Your task to perform on an android device: Open the calendar app, open the side menu, and click the "Day" option Image 0: 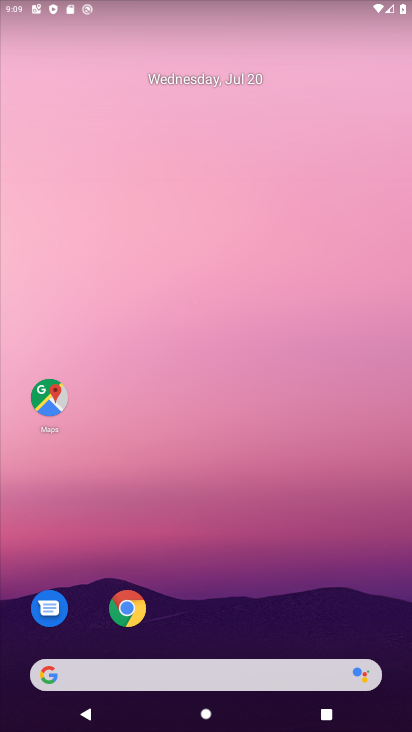
Step 0: drag from (149, 711) to (163, 6)
Your task to perform on an android device: Open the calendar app, open the side menu, and click the "Day" option Image 1: 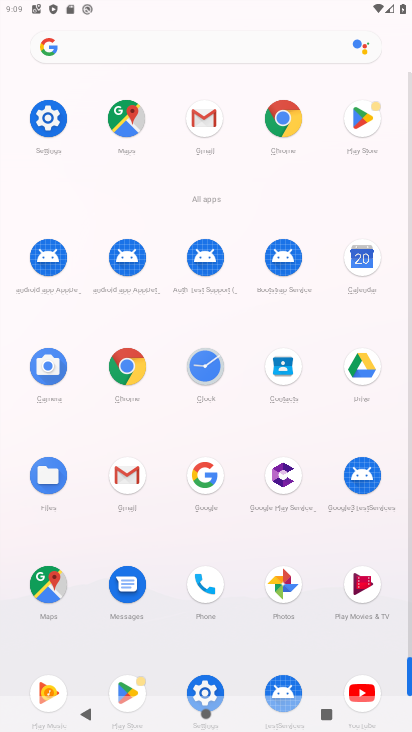
Step 1: click (367, 258)
Your task to perform on an android device: Open the calendar app, open the side menu, and click the "Day" option Image 2: 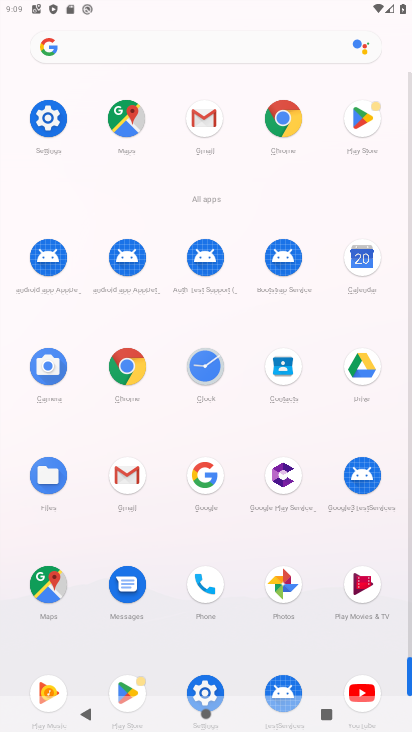
Step 2: click (367, 258)
Your task to perform on an android device: Open the calendar app, open the side menu, and click the "Day" option Image 3: 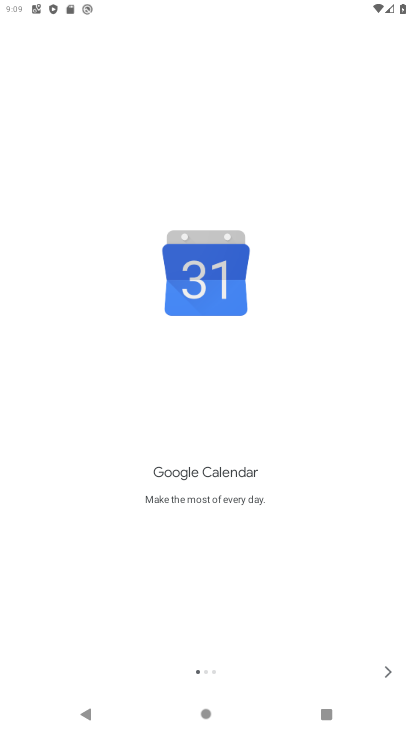
Step 3: click (391, 667)
Your task to perform on an android device: Open the calendar app, open the side menu, and click the "Day" option Image 4: 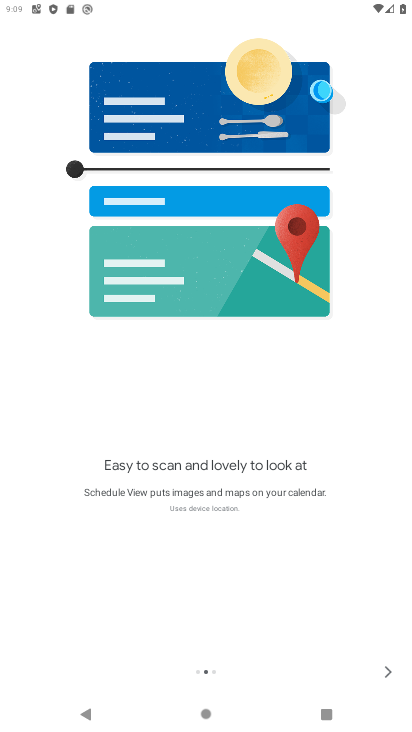
Step 4: click (390, 667)
Your task to perform on an android device: Open the calendar app, open the side menu, and click the "Day" option Image 5: 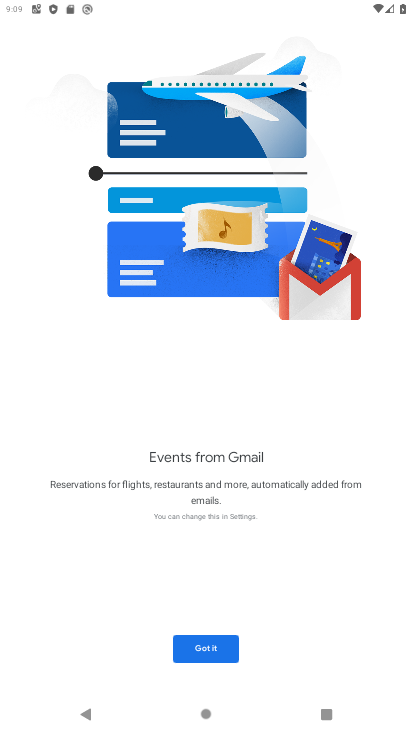
Step 5: click (203, 649)
Your task to perform on an android device: Open the calendar app, open the side menu, and click the "Day" option Image 6: 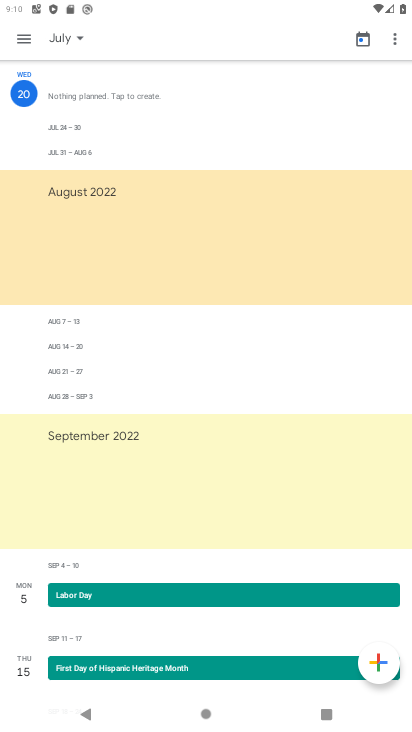
Step 6: click (25, 43)
Your task to perform on an android device: Open the calendar app, open the side menu, and click the "Day" option Image 7: 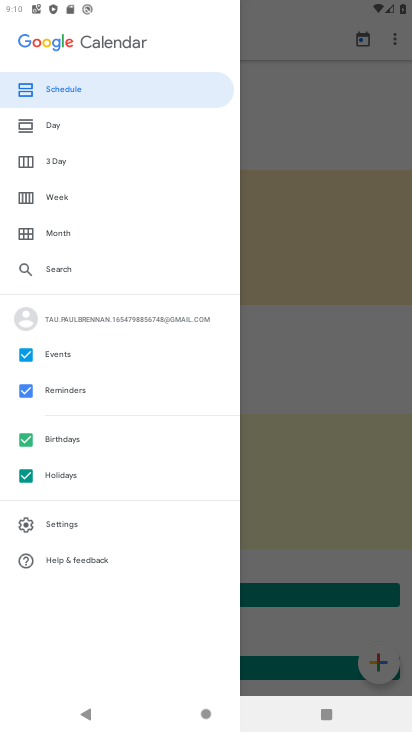
Step 7: click (69, 126)
Your task to perform on an android device: Open the calendar app, open the side menu, and click the "Day" option Image 8: 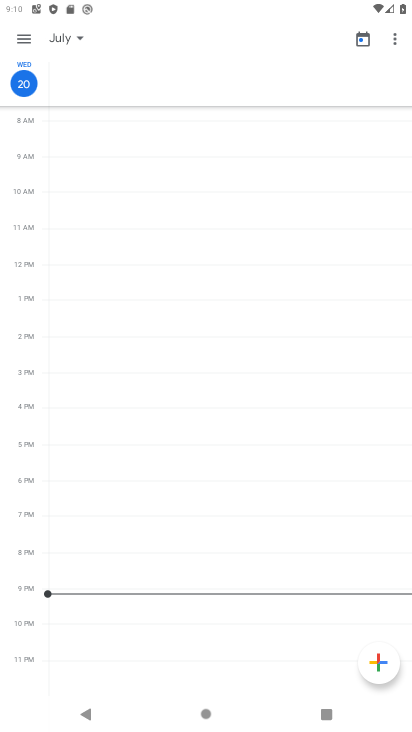
Step 8: task complete